Your task to perform on an android device: delete location history Image 0: 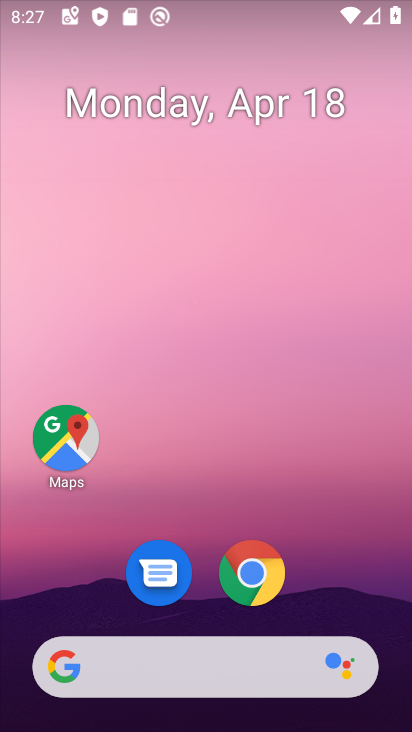
Step 0: drag from (317, 576) to (305, 157)
Your task to perform on an android device: delete location history Image 1: 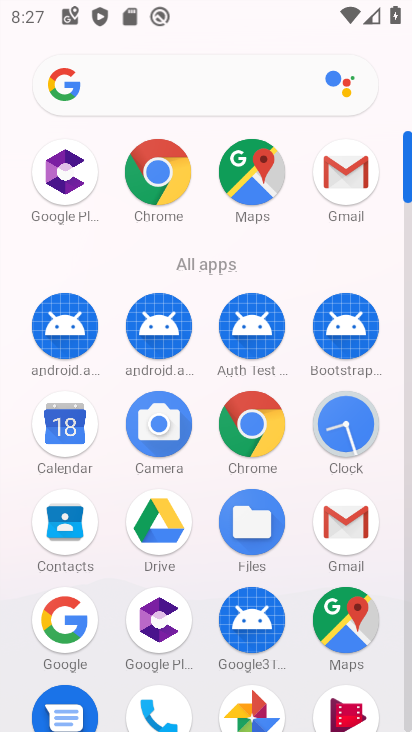
Step 1: click (272, 182)
Your task to perform on an android device: delete location history Image 2: 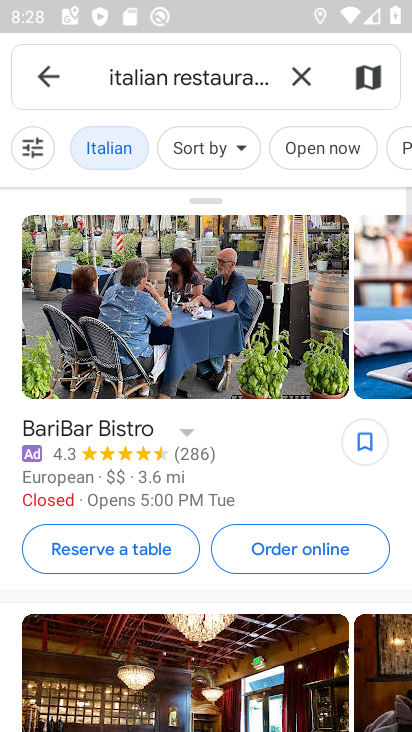
Step 2: click (301, 77)
Your task to perform on an android device: delete location history Image 3: 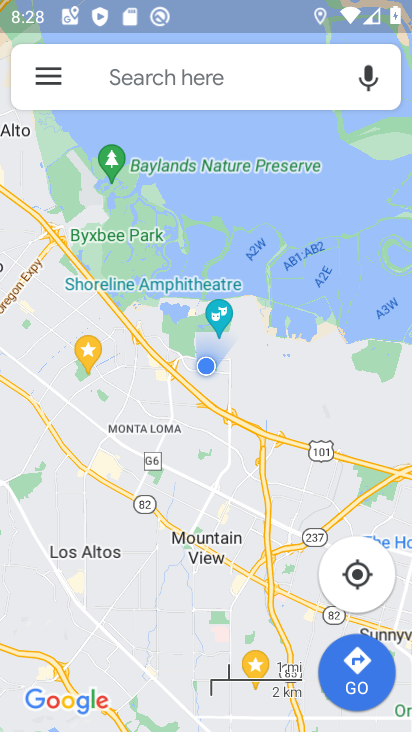
Step 3: click (37, 65)
Your task to perform on an android device: delete location history Image 4: 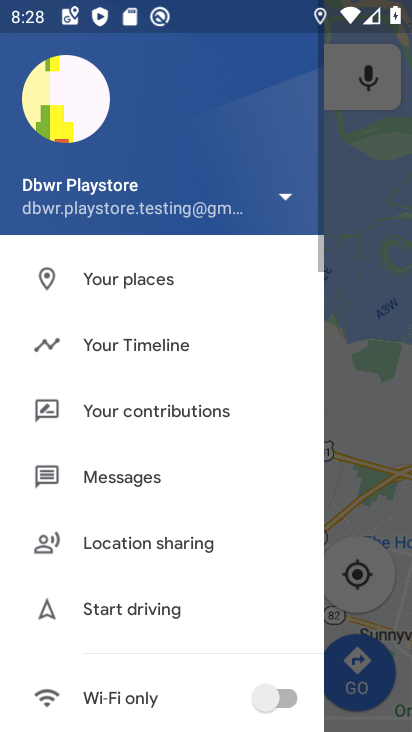
Step 4: click (165, 343)
Your task to perform on an android device: delete location history Image 5: 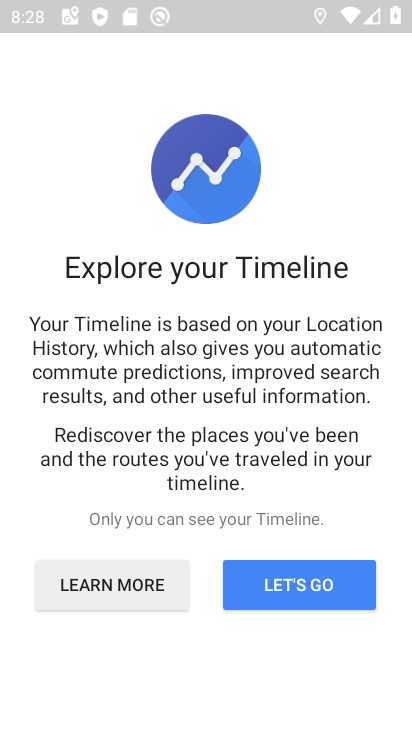
Step 5: click (282, 592)
Your task to perform on an android device: delete location history Image 6: 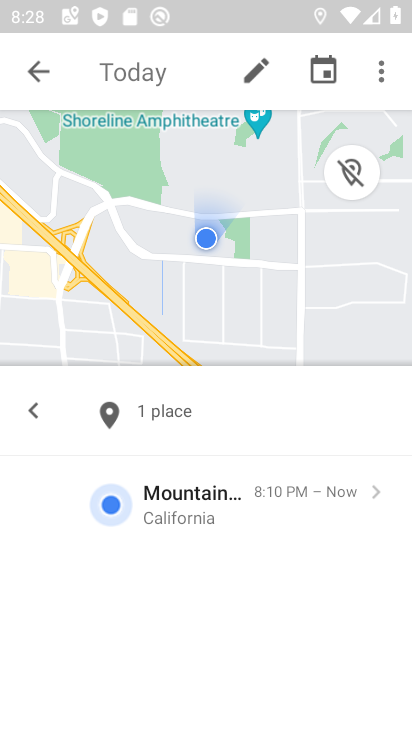
Step 6: click (374, 75)
Your task to perform on an android device: delete location history Image 7: 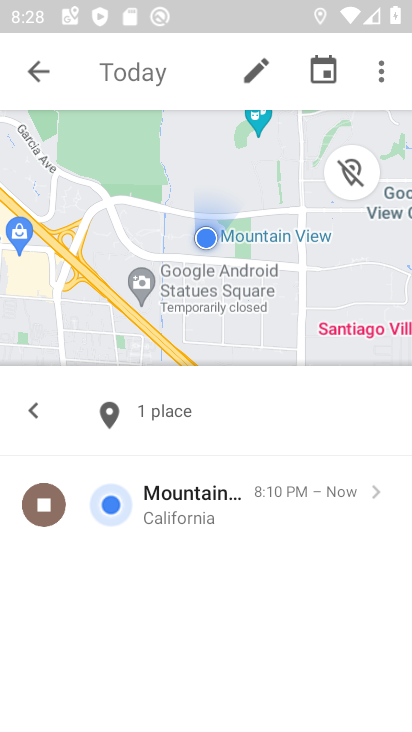
Step 7: click (383, 79)
Your task to perform on an android device: delete location history Image 8: 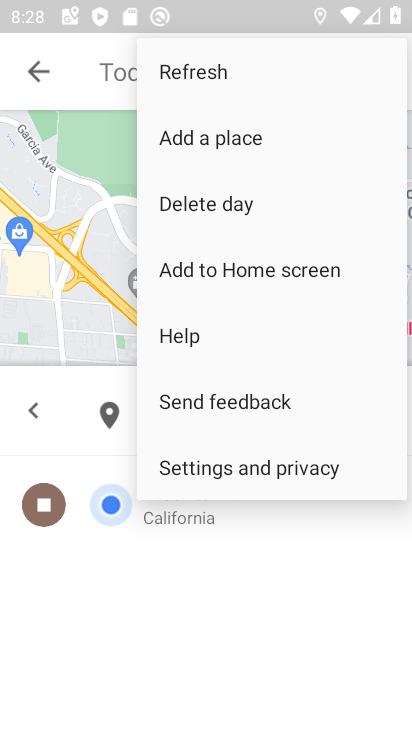
Step 8: click (291, 474)
Your task to perform on an android device: delete location history Image 9: 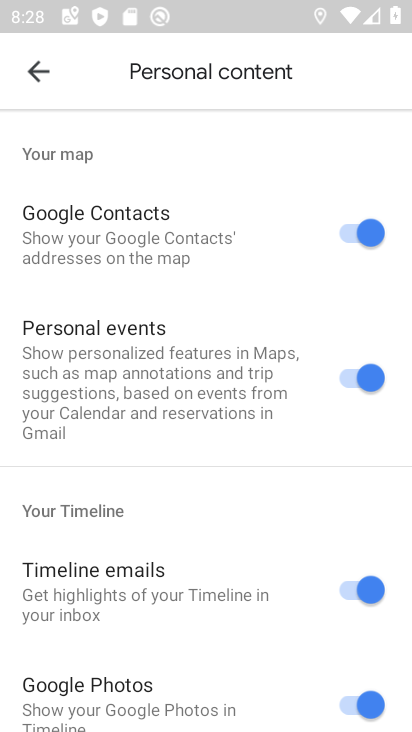
Step 9: drag from (239, 619) to (208, 270)
Your task to perform on an android device: delete location history Image 10: 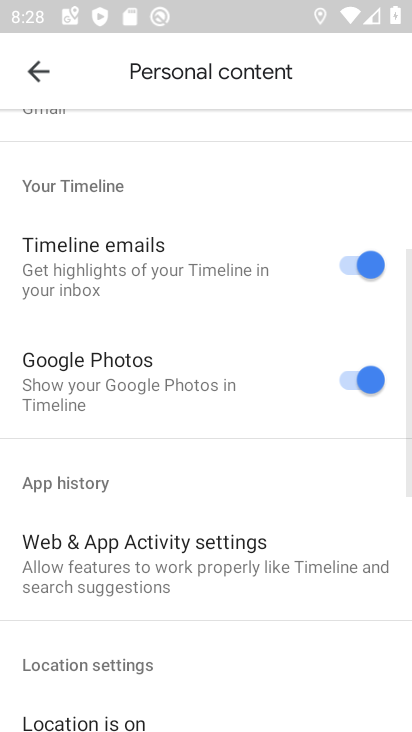
Step 10: drag from (242, 630) to (228, 253)
Your task to perform on an android device: delete location history Image 11: 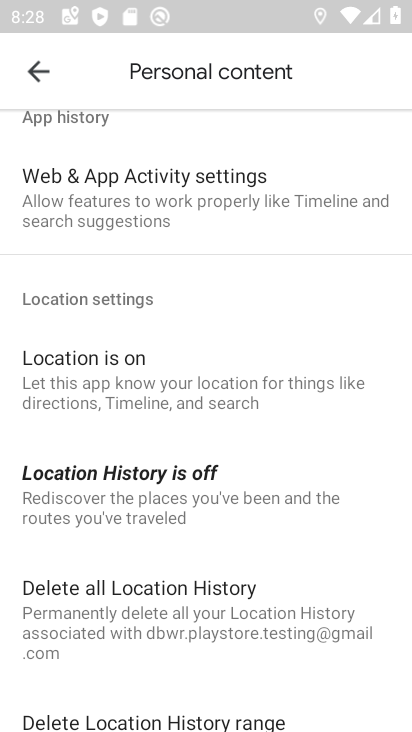
Step 11: drag from (251, 548) to (276, 331)
Your task to perform on an android device: delete location history Image 12: 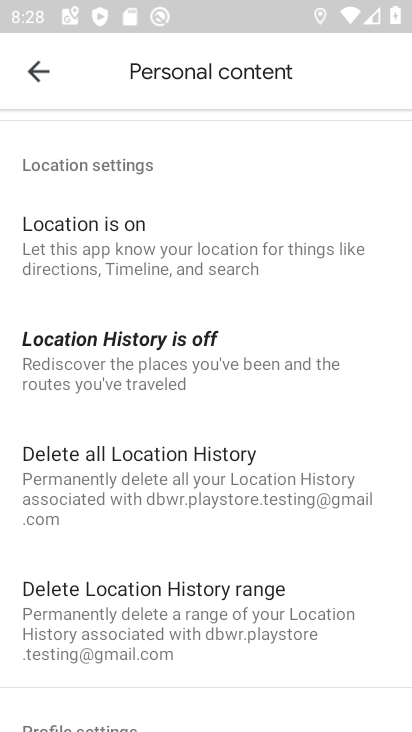
Step 12: click (240, 493)
Your task to perform on an android device: delete location history Image 13: 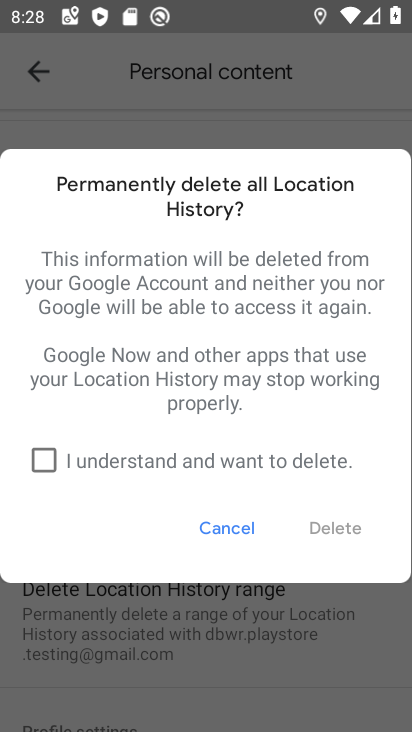
Step 13: click (53, 466)
Your task to perform on an android device: delete location history Image 14: 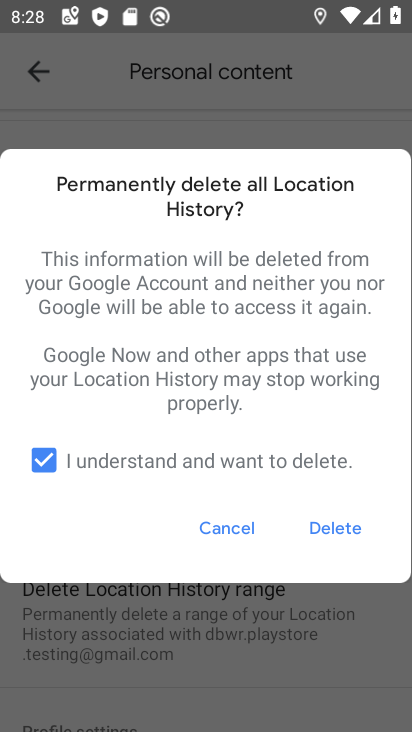
Step 14: click (352, 532)
Your task to perform on an android device: delete location history Image 15: 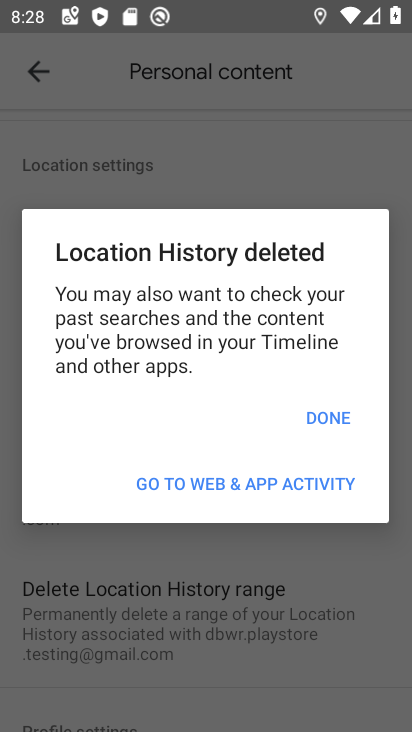
Step 15: click (325, 422)
Your task to perform on an android device: delete location history Image 16: 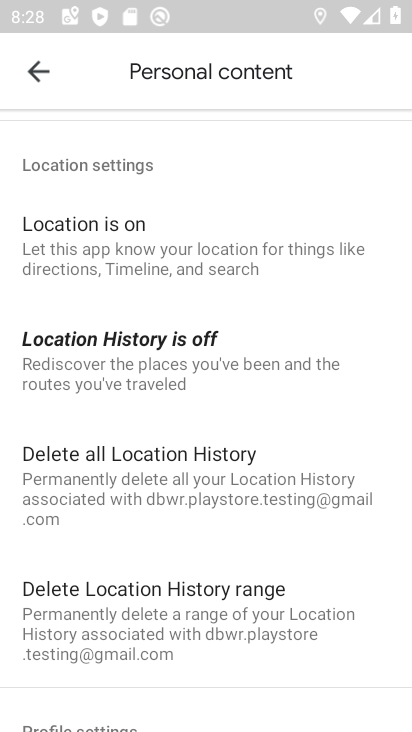
Step 16: task complete